Your task to perform on an android device: change your default location settings in chrome Image 0: 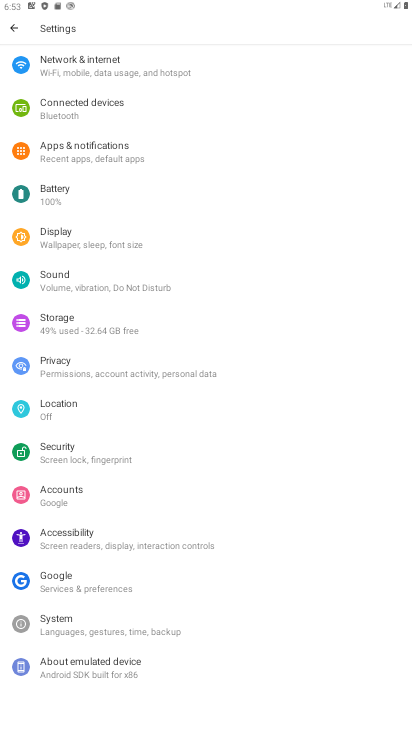
Step 0: press home button
Your task to perform on an android device: change your default location settings in chrome Image 1: 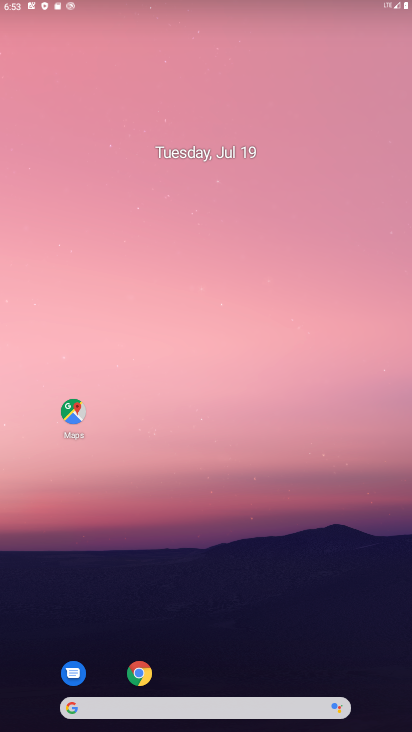
Step 1: drag from (318, 665) to (203, 32)
Your task to perform on an android device: change your default location settings in chrome Image 2: 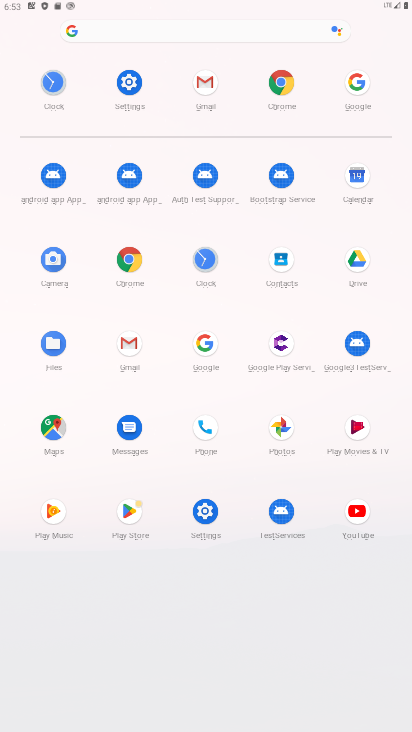
Step 2: click (121, 265)
Your task to perform on an android device: change your default location settings in chrome Image 3: 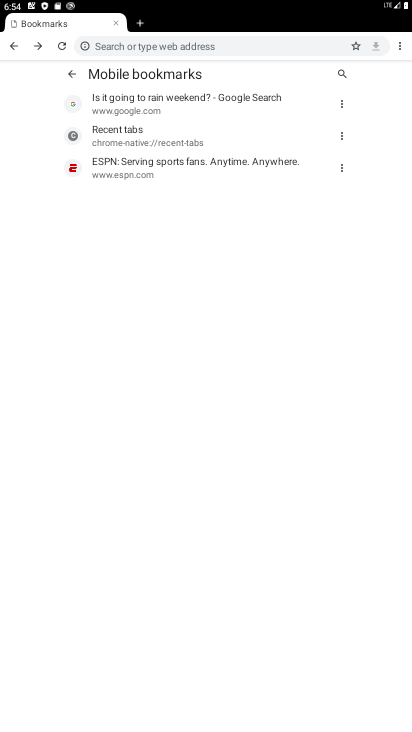
Step 3: click (396, 46)
Your task to perform on an android device: change your default location settings in chrome Image 4: 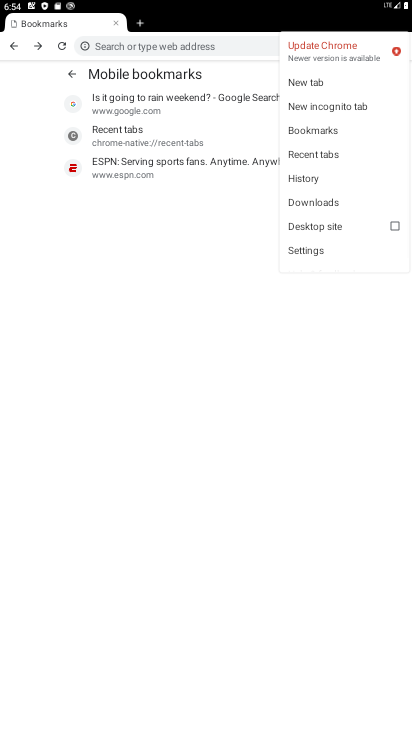
Step 4: click (313, 251)
Your task to perform on an android device: change your default location settings in chrome Image 5: 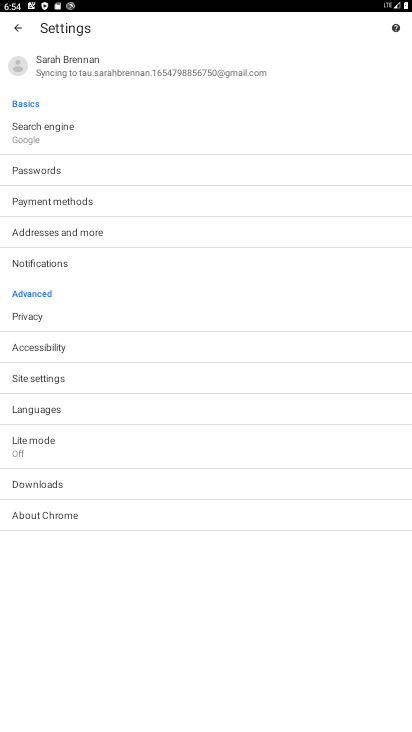
Step 5: click (70, 141)
Your task to perform on an android device: change your default location settings in chrome Image 6: 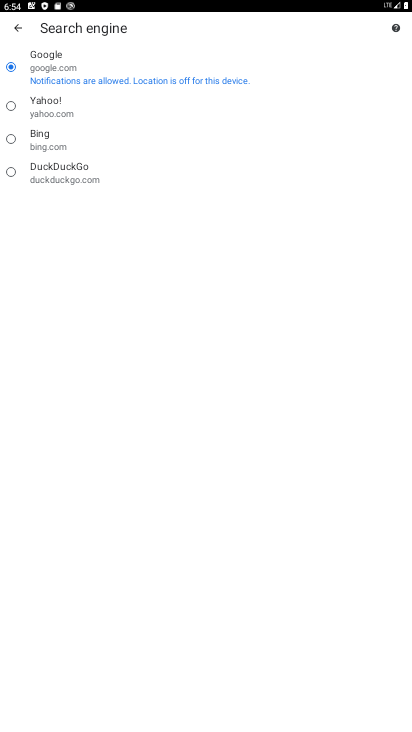
Step 6: click (43, 153)
Your task to perform on an android device: change your default location settings in chrome Image 7: 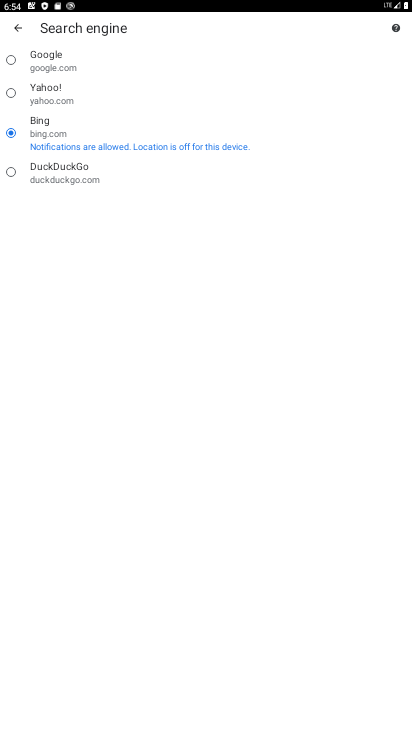
Step 7: task complete